Your task to perform on an android device: turn off location history Image 0: 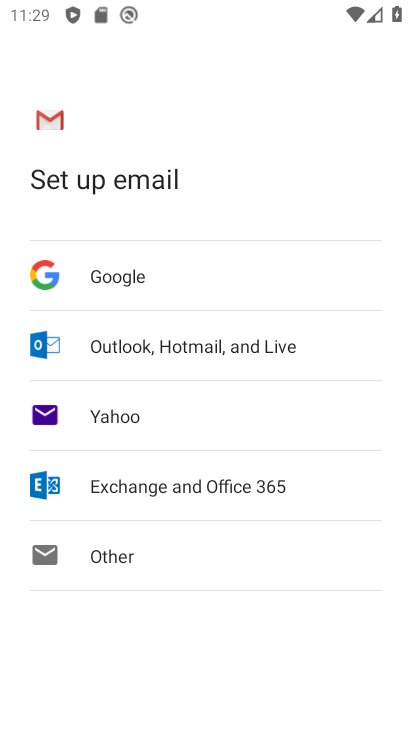
Step 0: press home button
Your task to perform on an android device: turn off location history Image 1: 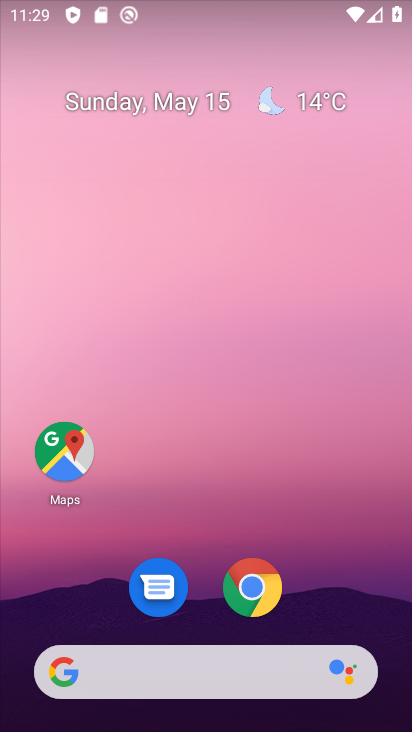
Step 1: drag from (214, 613) to (220, 6)
Your task to perform on an android device: turn off location history Image 2: 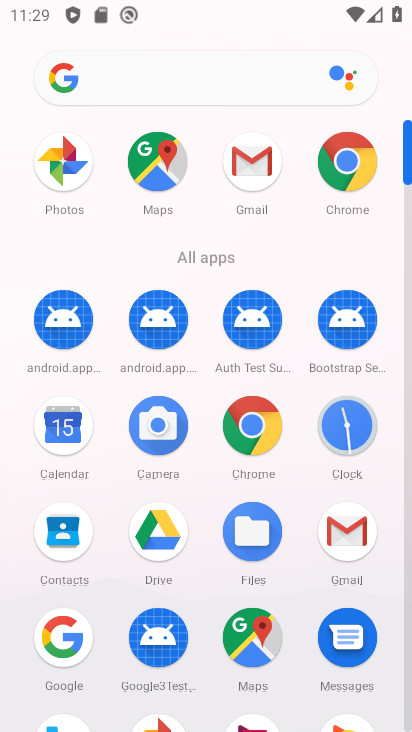
Step 2: drag from (196, 562) to (246, 113)
Your task to perform on an android device: turn off location history Image 3: 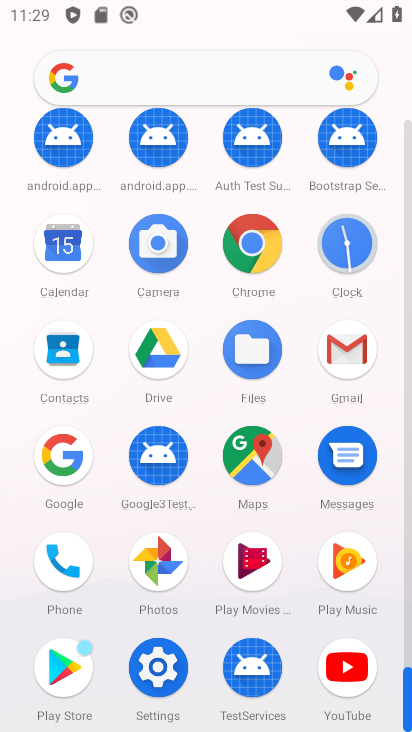
Step 3: click (143, 658)
Your task to perform on an android device: turn off location history Image 4: 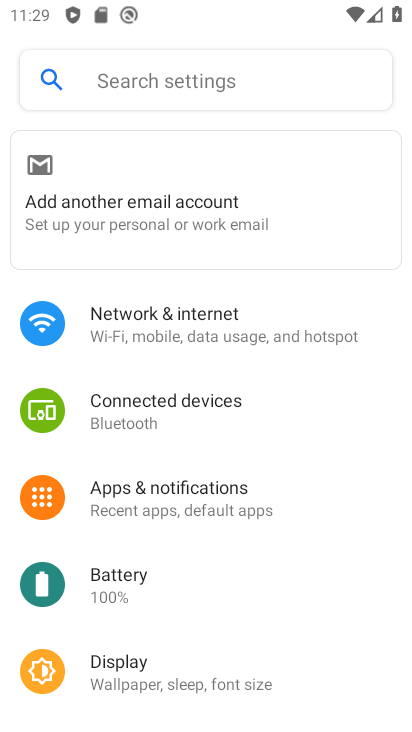
Step 4: drag from (143, 650) to (193, 305)
Your task to perform on an android device: turn off location history Image 5: 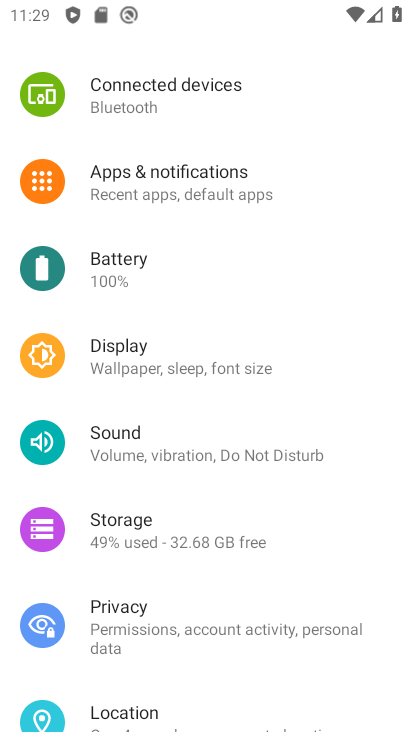
Step 5: click (144, 714)
Your task to perform on an android device: turn off location history Image 6: 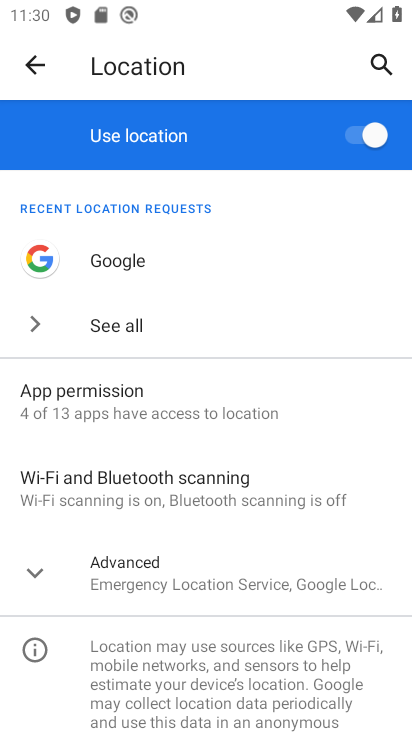
Step 6: click (220, 563)
Your task to perform on an android device: turn off location history Image 7: 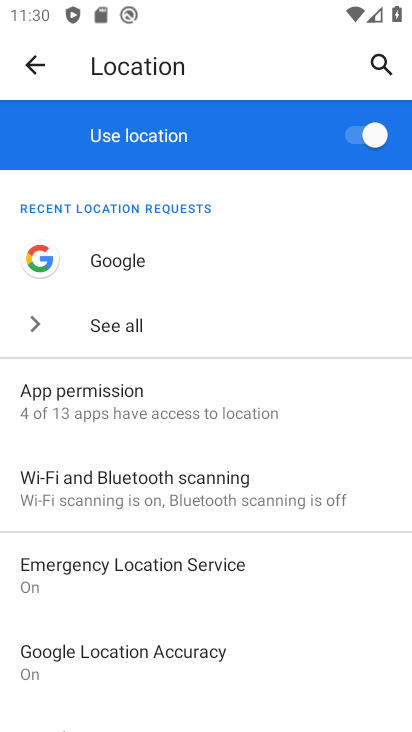
Step 7: drag from (244, 627) to (346, 201)
Your task to perform on an android device: turn off location history Image 8: 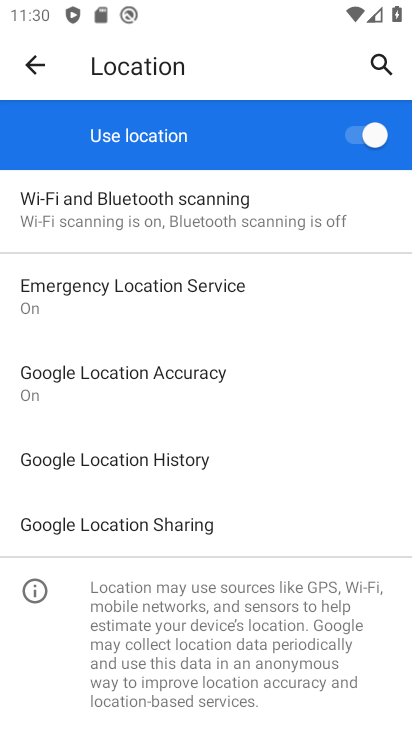
Step 8: click (179, 454)
Your task to perform on an android device: turn off location history Image 9: 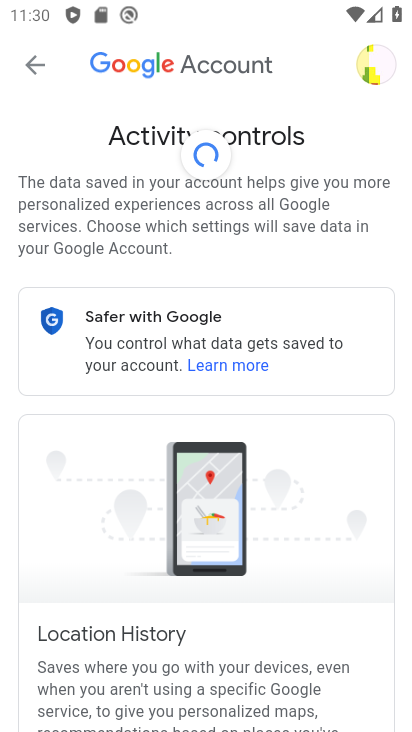
Step 9: drag from (185, 586) to (292, 171)
Your task to perform on an android device: turn off location history Image 10: 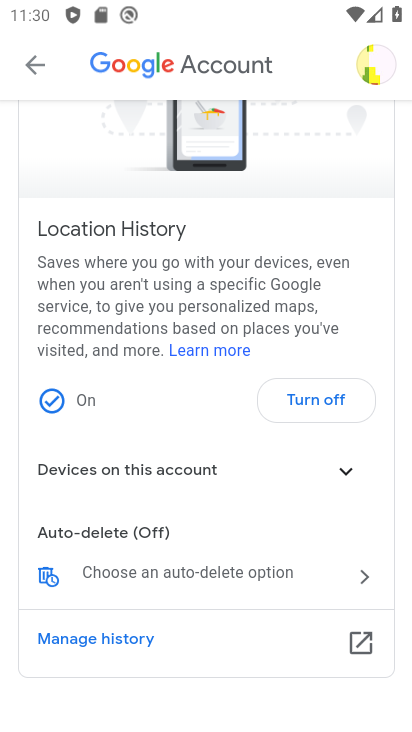
Step 10: click (329, 406)
Your task to perform on an android device: turn off location history Image 11: 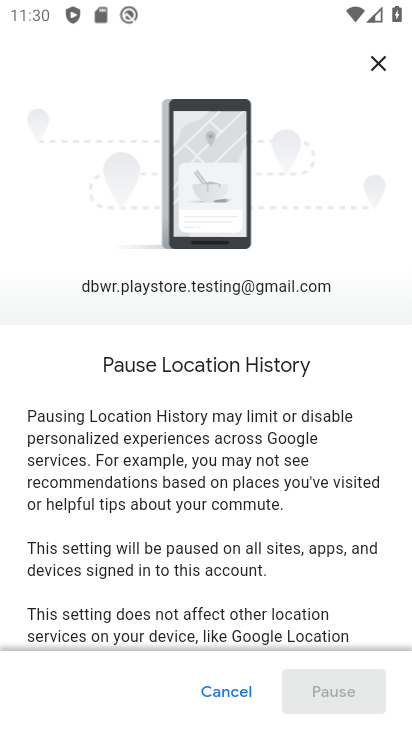
Step 11: drag from (327, 588) to (391, 86)
Your task to perform on an android device: turn off location history Image 12: 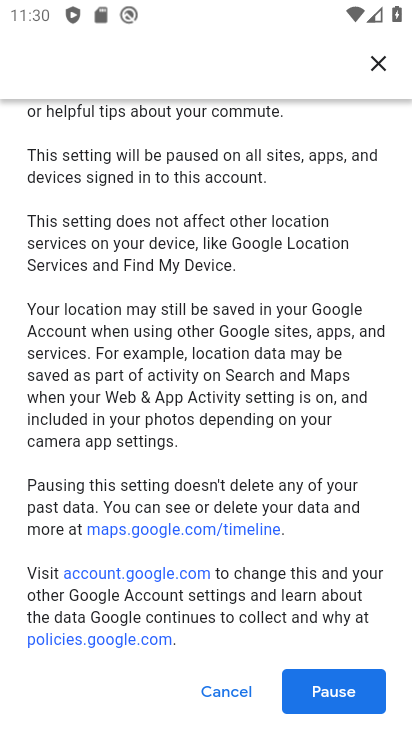
Step 12: click (318, 681)
Your task to perform on an android device: turn off location history Image 13: 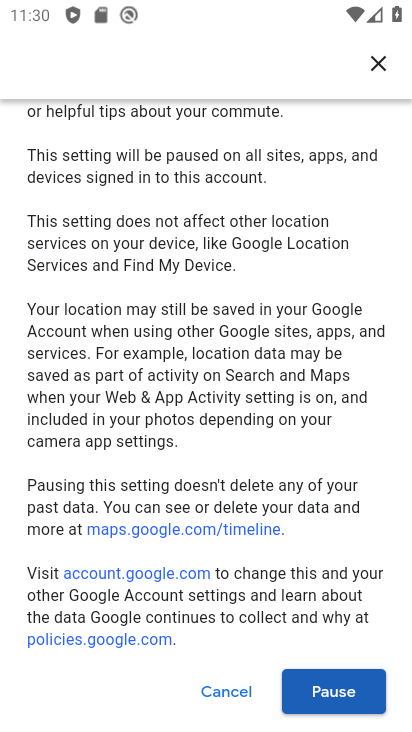
Step 13: click (316, 704)
Your task to perform on an android device: turn off location history Image 14: 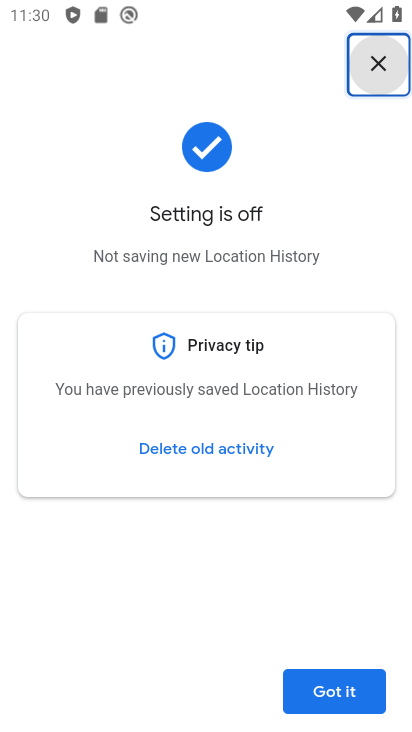
Step 14: click (326, 686)
Your task to perform on an android device: turn off location history Image 15: 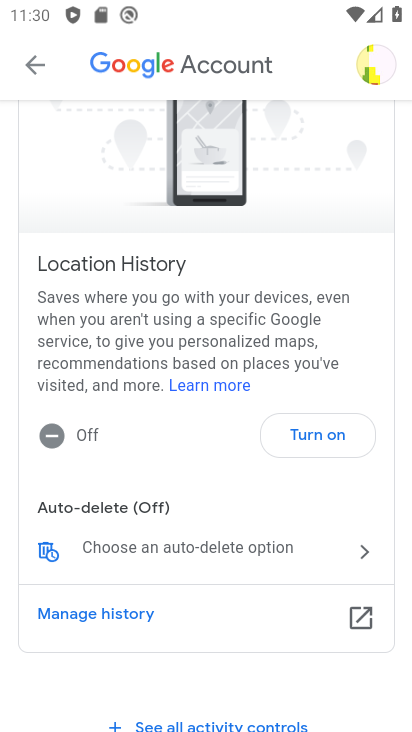
Step 15: task complete